Your task to perform on an android device: toggle show notifications on the lock screen Image 0: 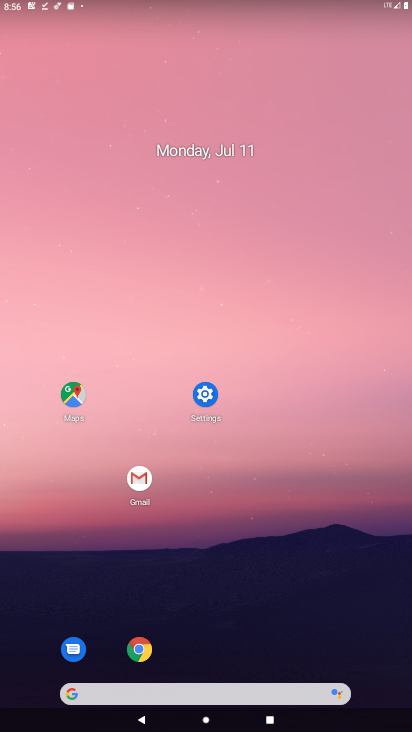
Step 0: click (208, 397)
Your task to perform on an android device: toggle show notifications on the lock screen Image 1: 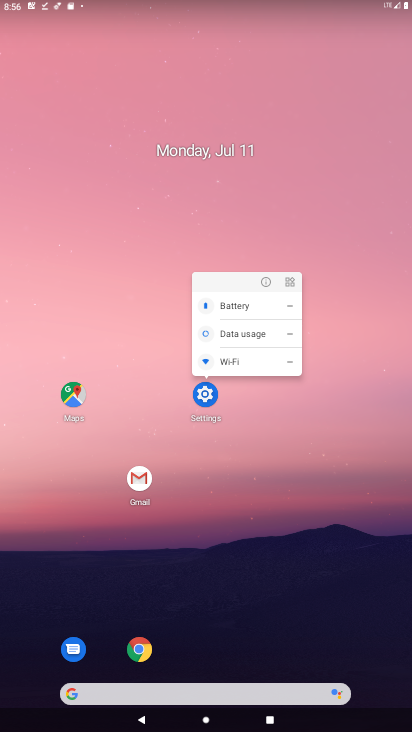
Step 1: click (208, 393)
Your task to perform on an android device: toggle show notifications on the lock screen Image 2: 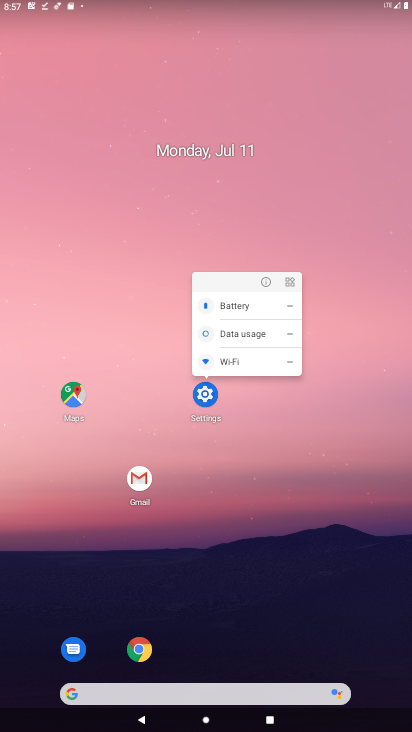
Step 2: click (188, 390)
Your task to perform on an android device: toggle show notifications on the lock screen Image 3: 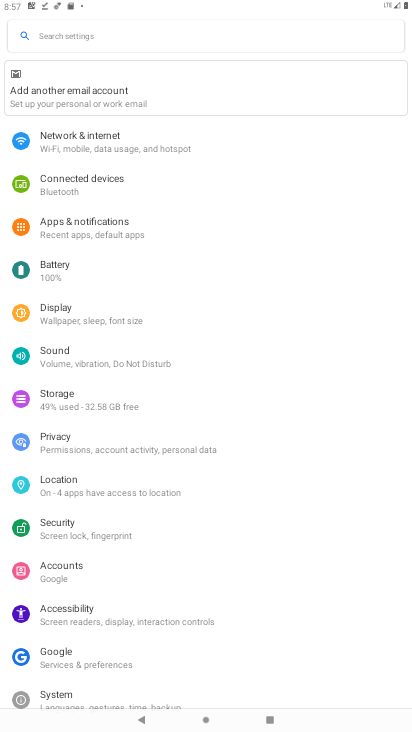
Step 3: click (77, 222)
Your task to perform on an android device: toggle show notifications on the lock screen Image 4: 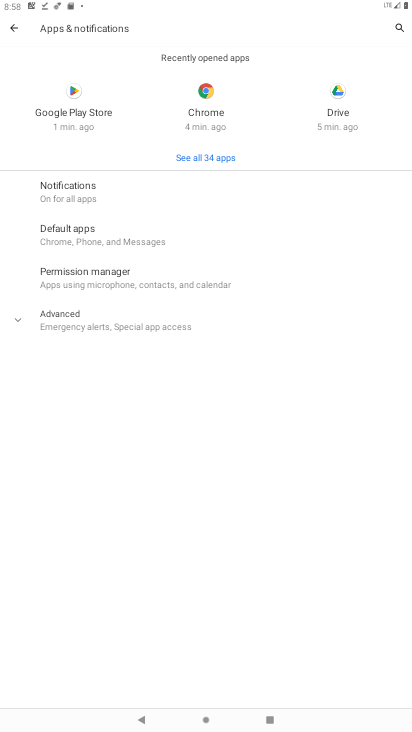
Step 4: click (65, 190)
Your task to perform on an android device: toggle show notifications on the lock screen Image 5: 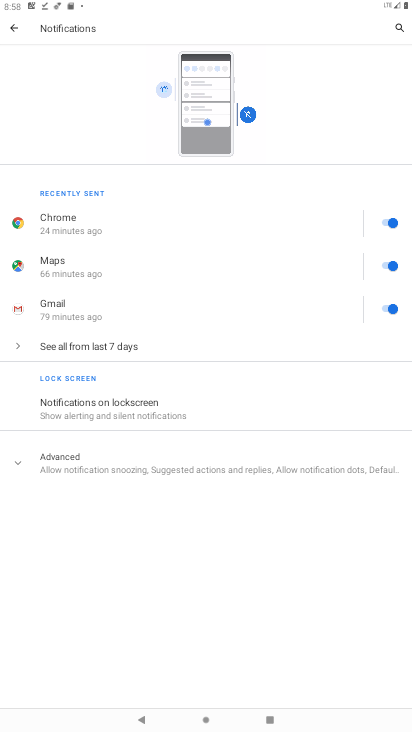
Step 5: click (85, 406)
Your task to perform on an android device: toggle show notifications on the lock screen Image 6: 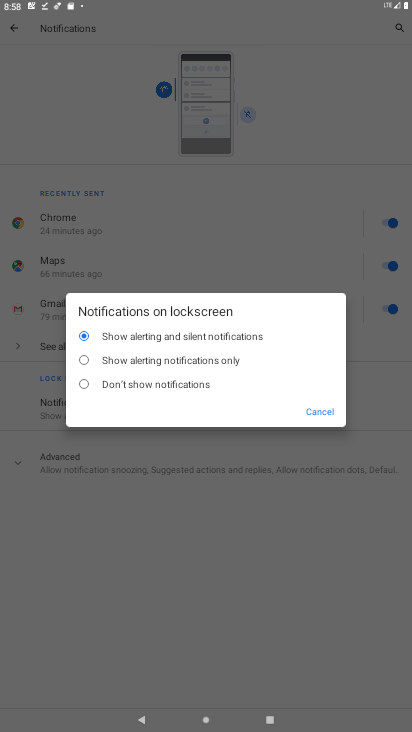
Step 6: click (86, 358)
Your task to perform on an android device: toggle show notifications on the lock screen Image 7: 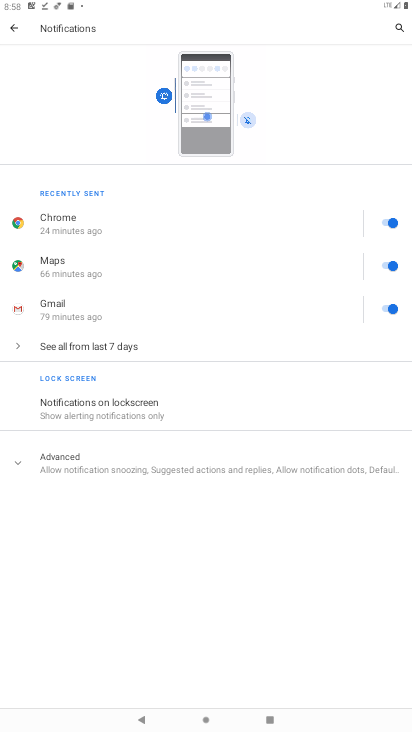
Step 7: task complete